Your task to perform on an android device: clear history in the chrome app Image 0: 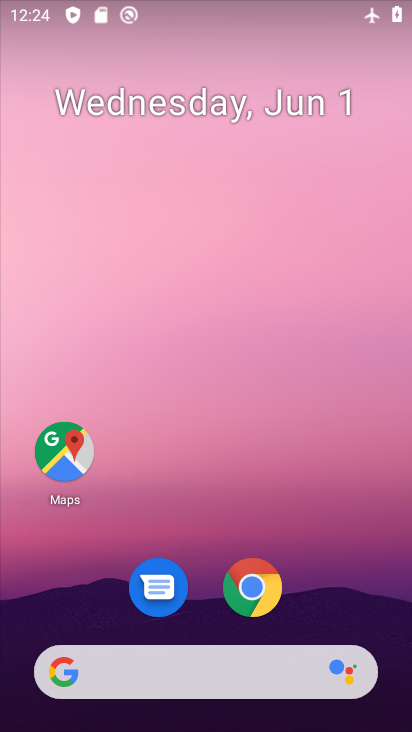
Step 0: click (251, 590)
Your task to perform on an android device: clear history in the chrome app Image 1: 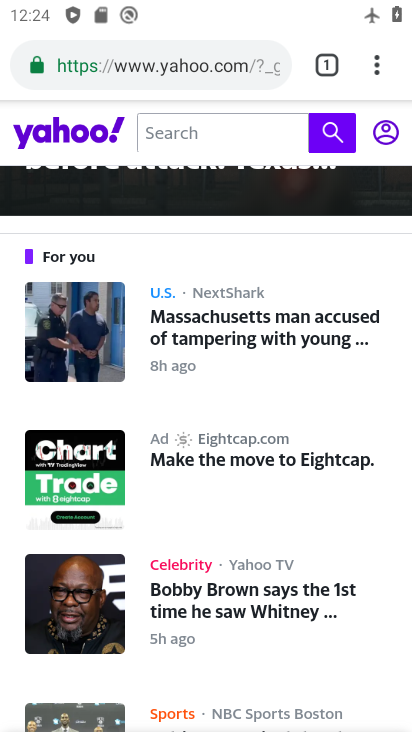
Step 1: click (380, 61)
Your task to perform on an android device: clear history in the chrome app Image 2: 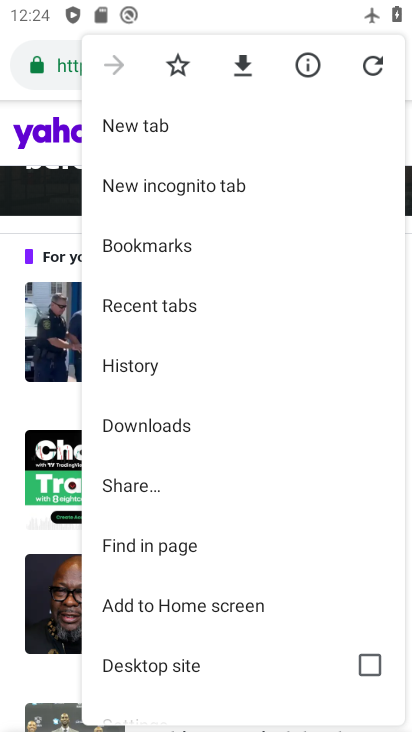
Step 2: click (145, 365)
Your task to perform on an android device: clear history in the chrome app Image 3: 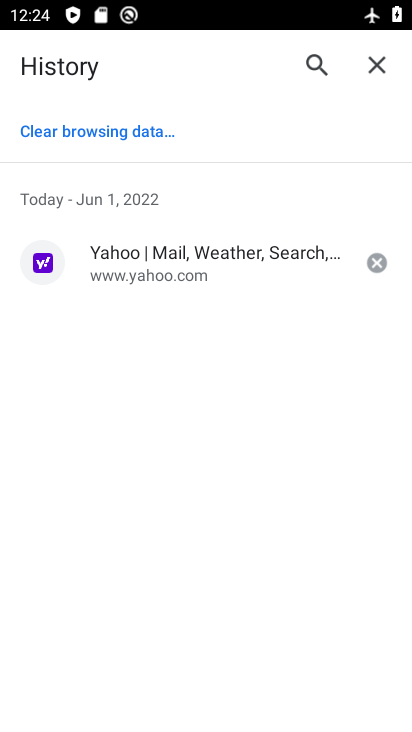
Step 3: click (94, 131)
Your task to perform on an android device: clear history in the chrome app Image 4: 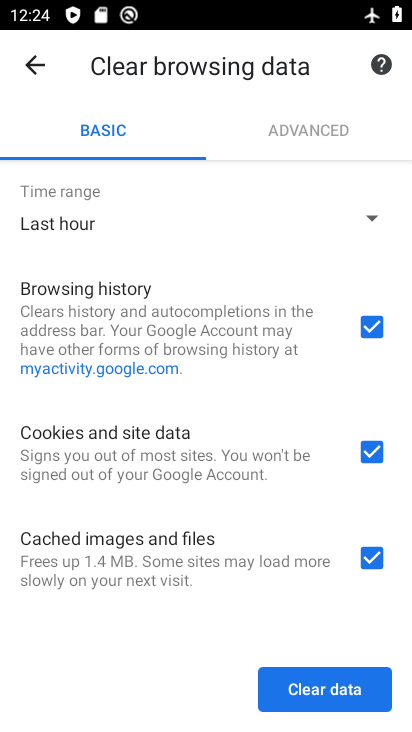
Step 4: click (312, 686)
Your task to perform on an android device: clear history in the chrome app Image 5: 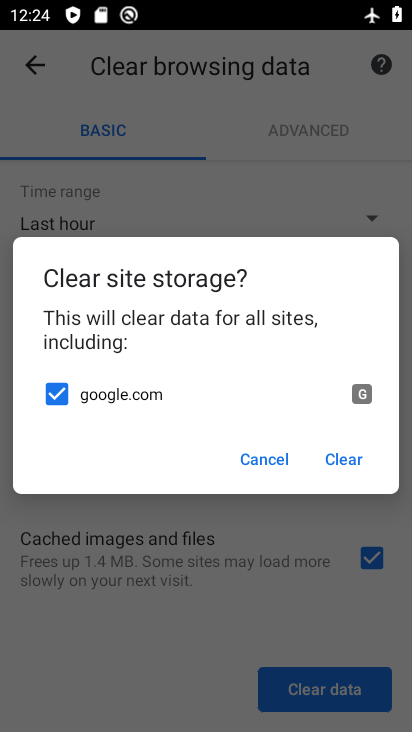
Step 5: click (343, 457)
Your task to perform on an android device: clear history in the chrome app Image 6: 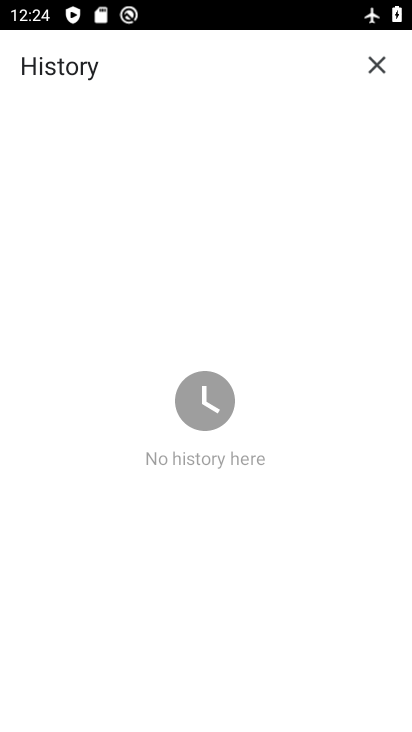
Step 6: task complete